Your task to perform on an android device: turn pop-ups off in chrome Image 0: 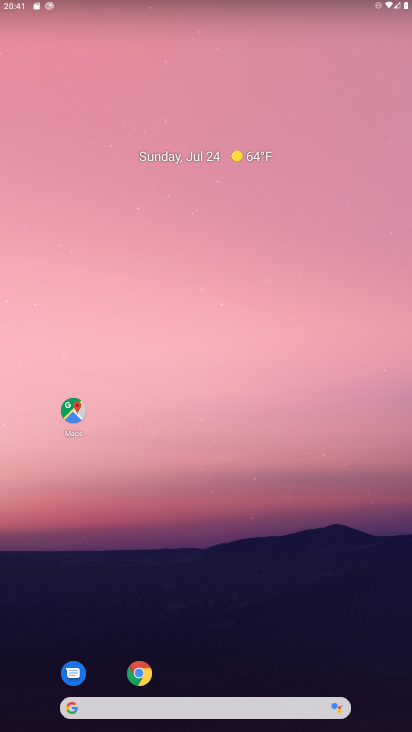
Step 0: click (139, 669)
Your task to perform on an android device: turn pop-ups off in chrome Image 1: 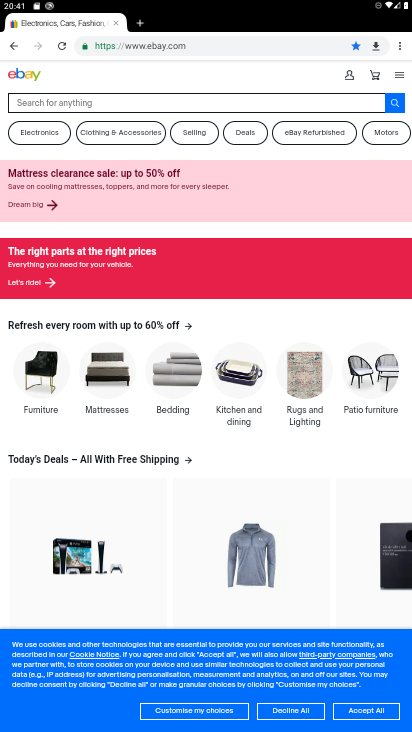
Step 1: click (403, 42)
Your task to perform on an android device: turn pop-ups off in chrome Image 2: 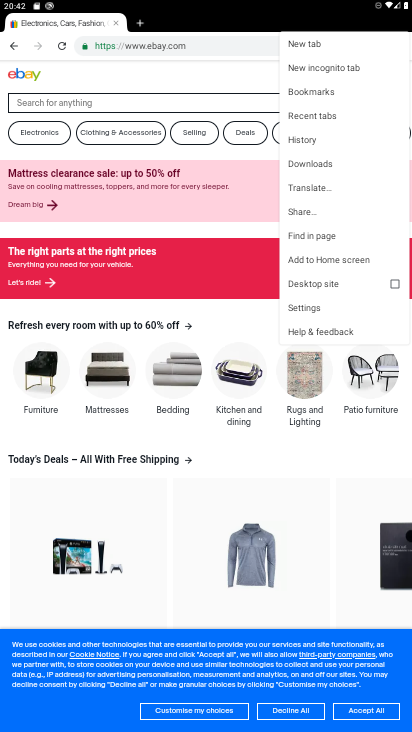
Step 2: click (317, 301)
Your task to perform on an android device: turn pop-ups off in chrome Image 3: 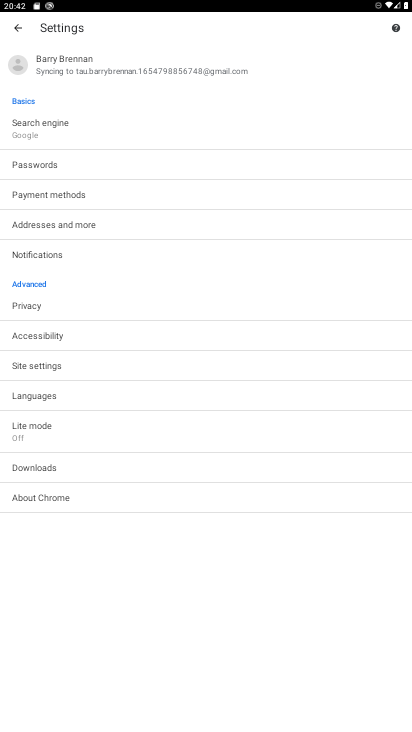
Step 3: click (59, 365)
Your task to perform on an android device: turn pop-ups off in chrome Image 4: 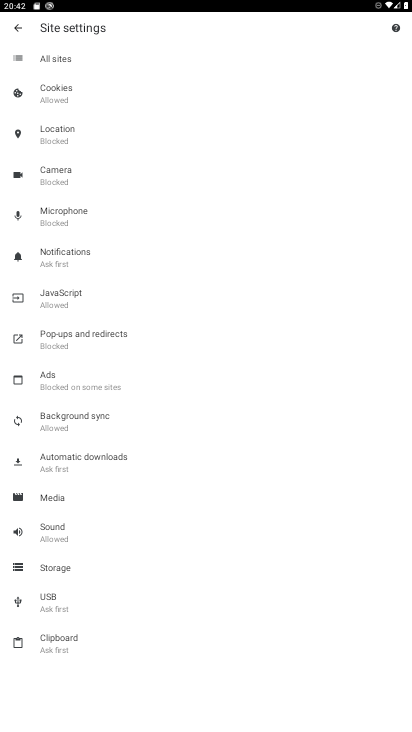
Step 4: click (130, 339)
Your task to perform on an android device: turn pop-ups off in chrome Image 5: 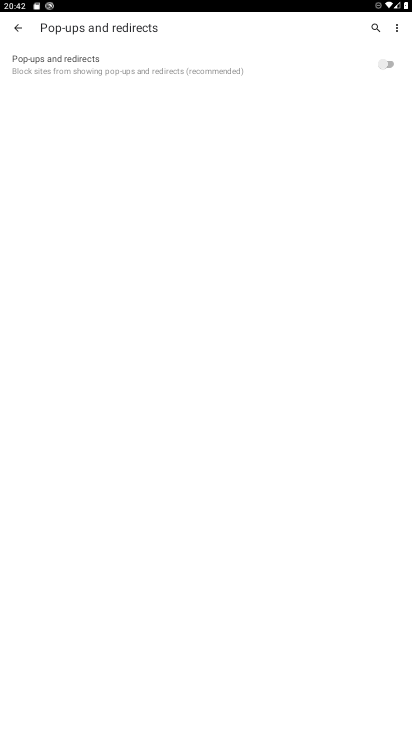
Step 5: task complete